Your task to perform on an android device: Show me popular games on the Play Store Image 0: 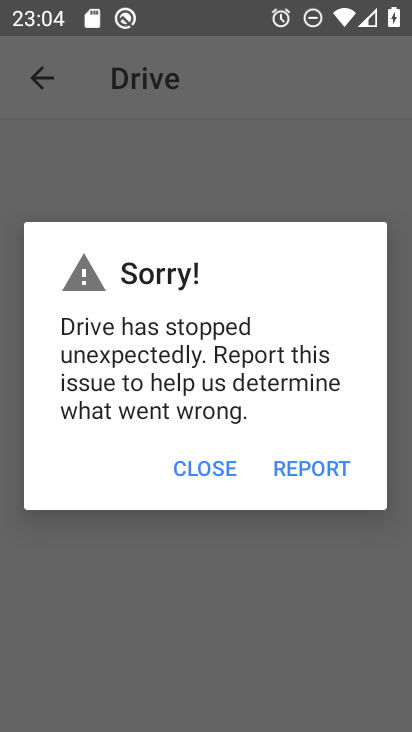
Step 0: press home button
Your task to perform on an android device: Show me popular games on the Play Store Image 1: 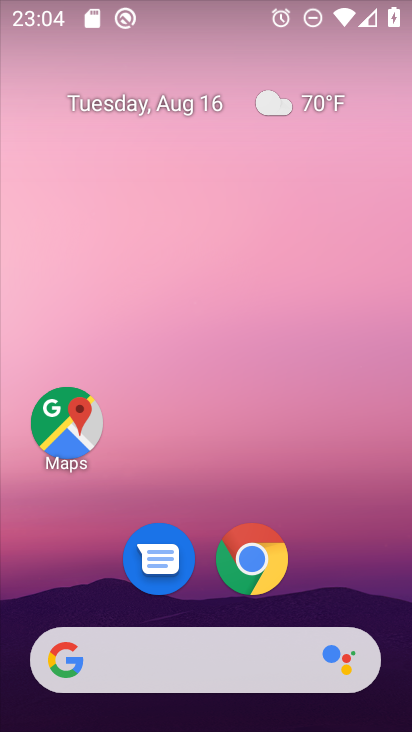
Step 1: drag from (158, 659) to (234, 56)
Your task to perform on an android device: Show me popular games on the Play Store Image 2: 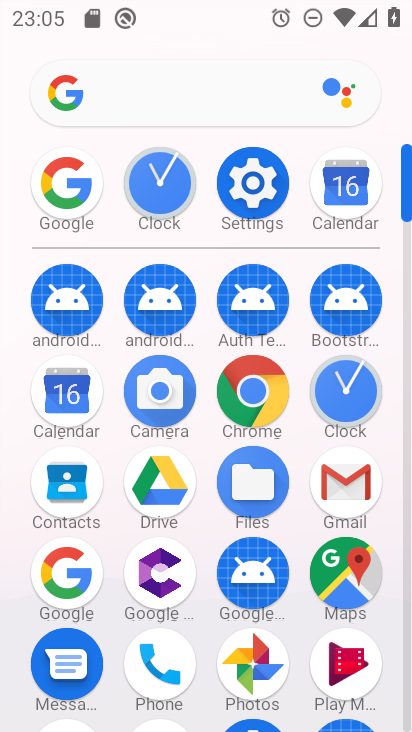
Step 2: drag from (203, 361) to (207, 172)
Your task to perform on an android device: Show me popular games on the Play Store Image 3: 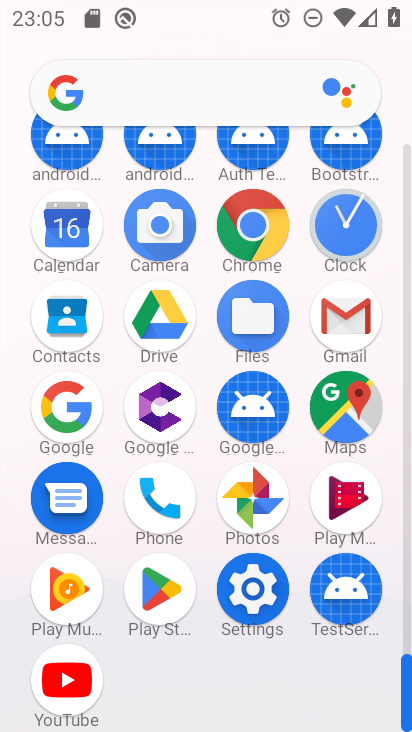
Step 3: click (160, 589)
Your task to perform on an android device: Show me popular games on the Play Store Image 4: 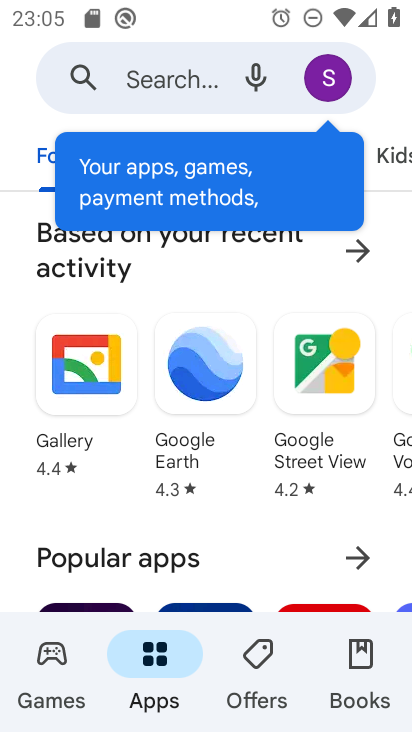
Step 4: click (169, 80)
Your task to perform on an android device: Show me popular games on the Play Store Image 5: 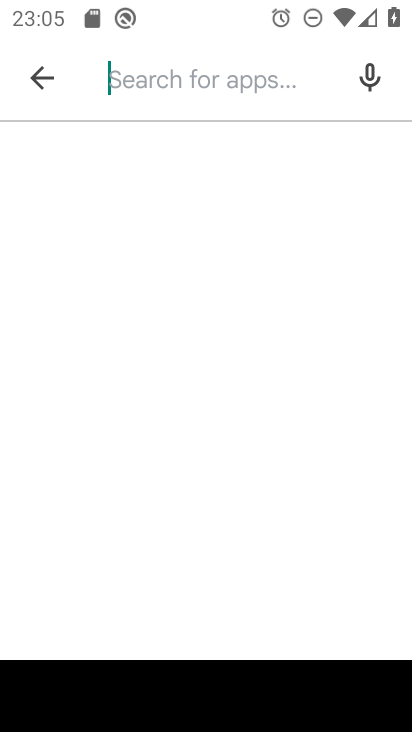
Step 5: type "popular games"
Your task to perform on an android device: Show me popular games on the Play Store Image 6: 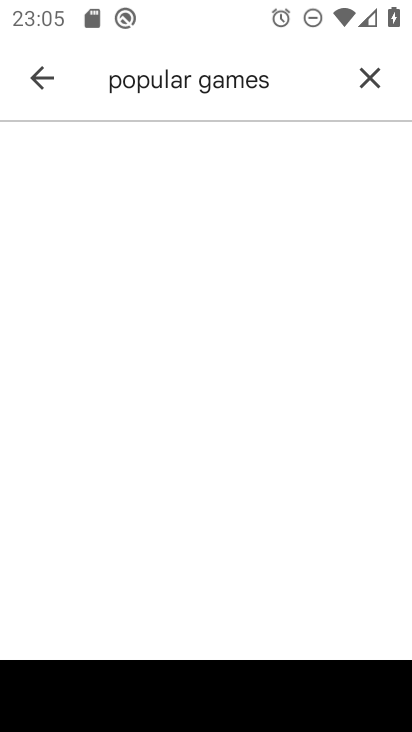
Step 6: click (373, 77)
Your task to perform on an android device: Show me popular games on the Play Store Image 7: 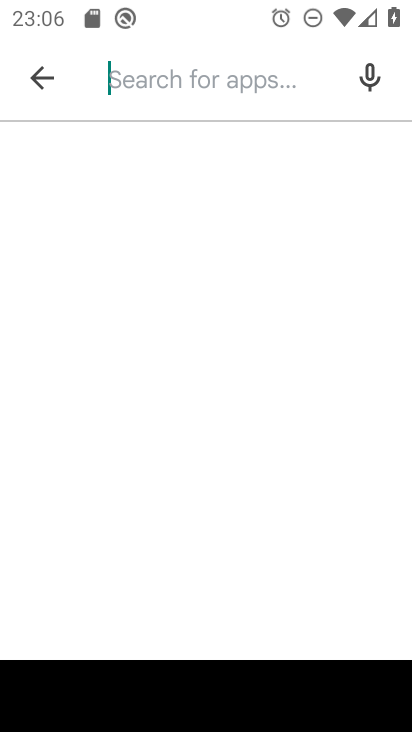
Step 7: press back button
Your task to perform on an android device: Show me popular games on the Play Store Image 8: 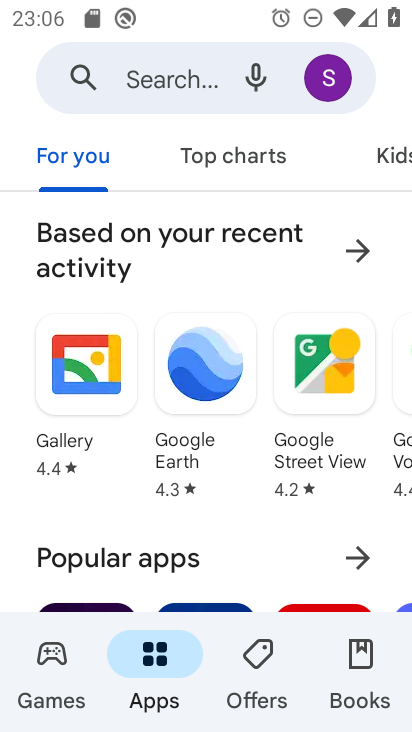
Step 8: click (57, 662)
Your task to perform on an android device: Show me popular games on the Play Store Image 9: 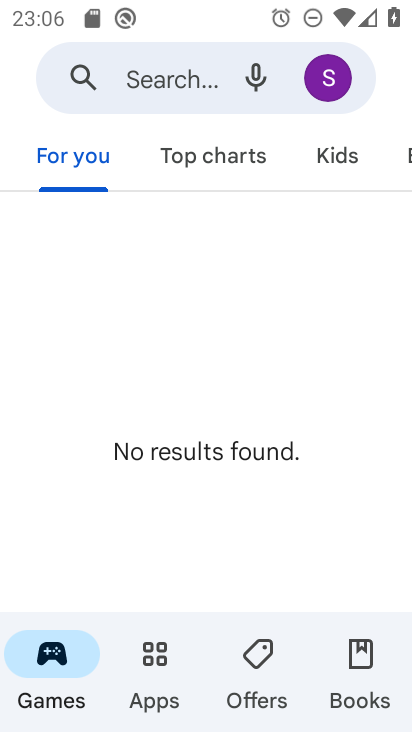
Step 9: click (195, 86)
Your task to perform on an android device: Show me popular games on the Play Store Image 10: 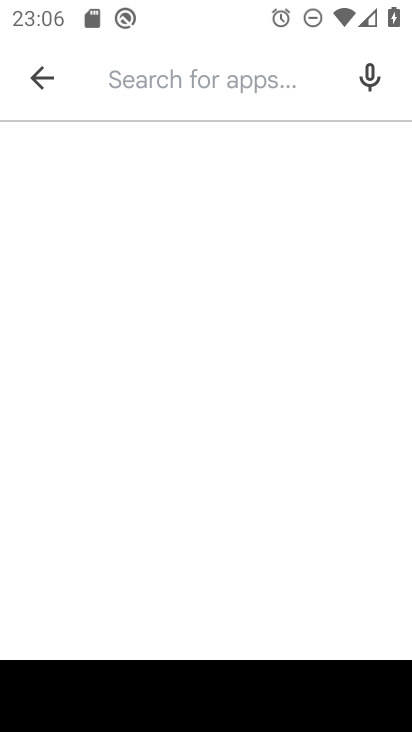
Step 10: type "popular games"
Your task to perform on an android device: Show me popular games on the Play Store Image 11: 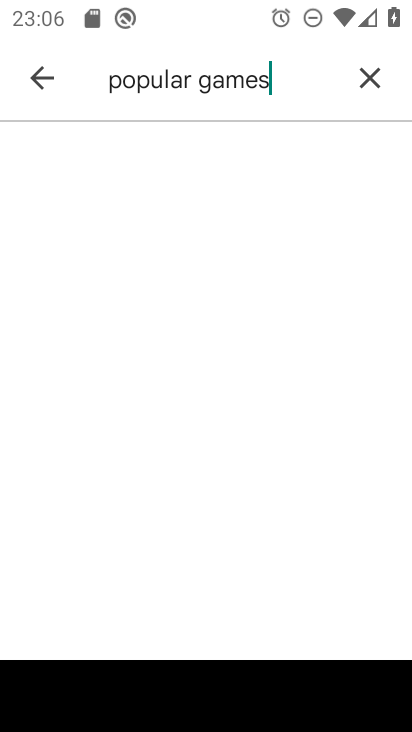
Step 11: task complete